Your task to perform on an android device: check storage Image 0: 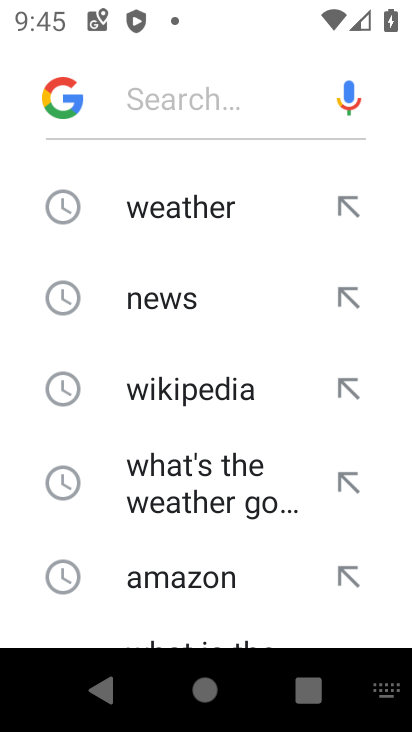
Step 0: press home button
Your task to perform on an android device: check storage Image 1: 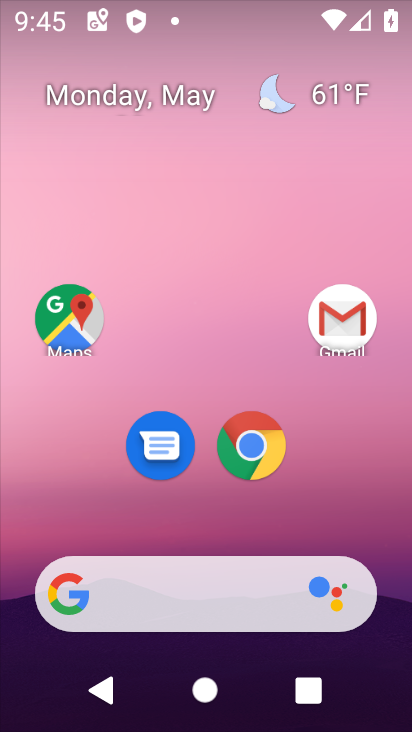
Step 1: drag from (342, 484) to (366, 101)
Your task to perform on an android device: check storage Image 2: 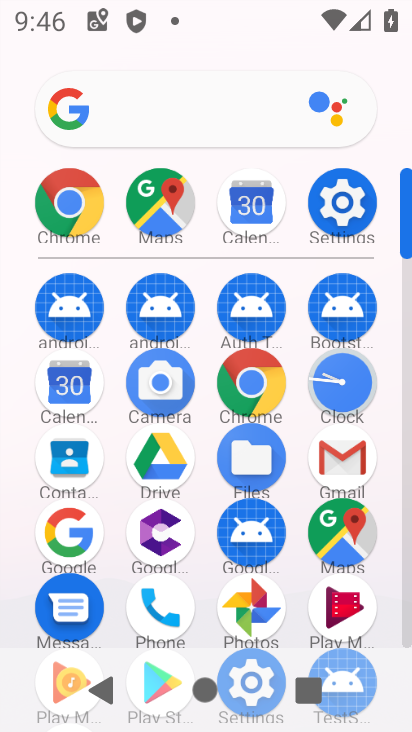
Step 2: click (347, 228)
Your task to perform on an android device: check storage Image 3: 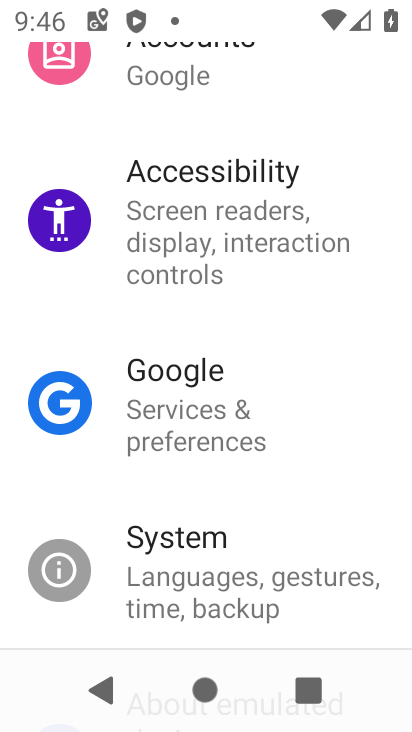
Step 3: drag from (362, 277) to (355, 402)
Your task to perform on an android device: check storage Image 4: 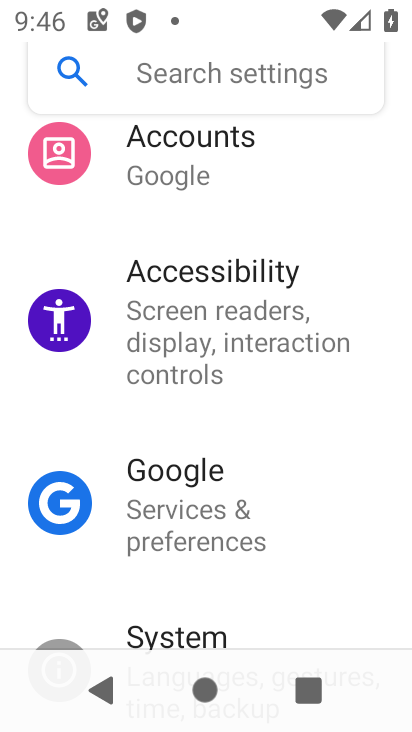
Step 4: drag from (359, 186) to (364, 347)
Your task to perform on an android device: check storage Image 5: 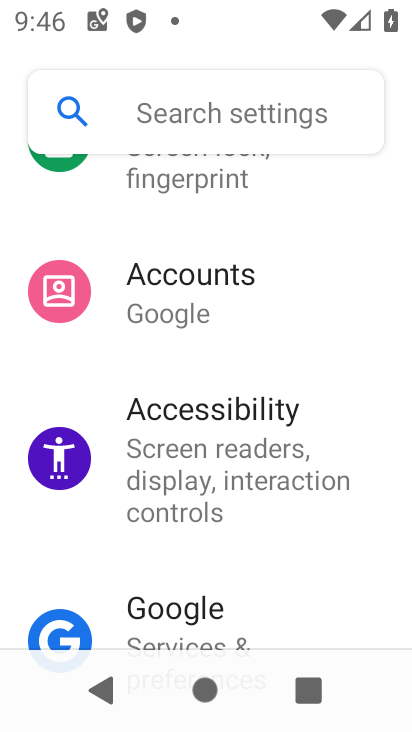
Step 5: drag from (357, 191) to (354, 361)
Your task to perform on an android device: check storage Image 6: 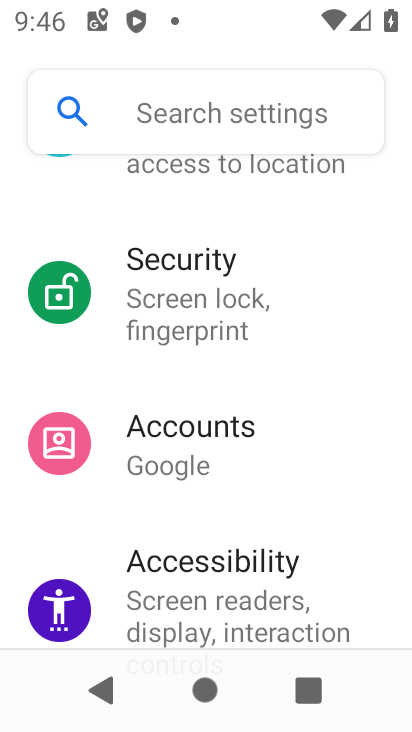
Step 6: drag from (332, 218) to (332, 337)
Your task to perform on an android device: check storage Image 7: 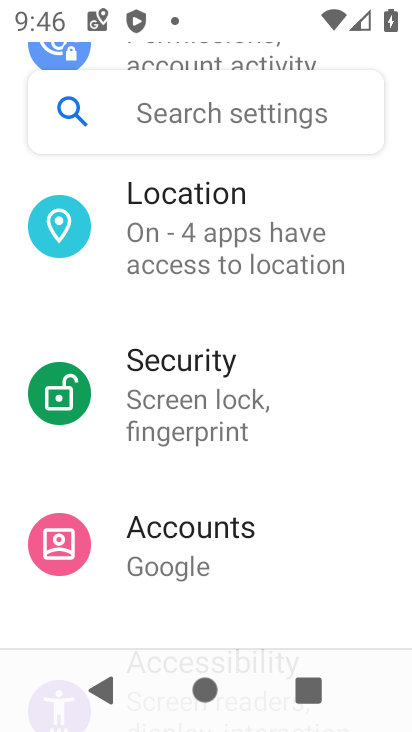
Step 7: drag from (359, 227) to (360, 417)
Your task to perform on an android device: check storage Image 8: 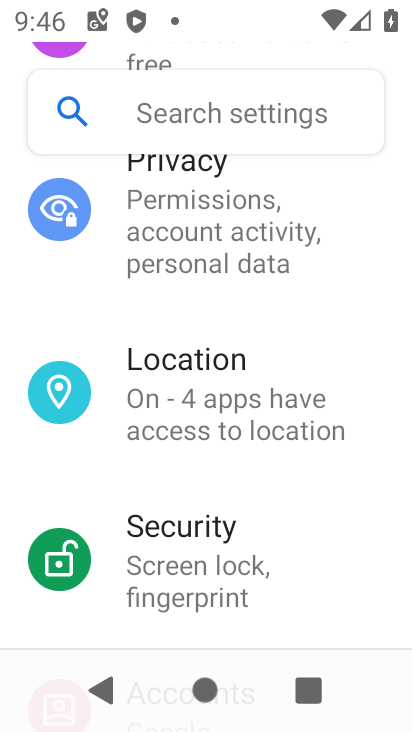
Step 8: drag from (354, 268) to (356, 401)
Your task to perform on an android device: check storage Image 9: 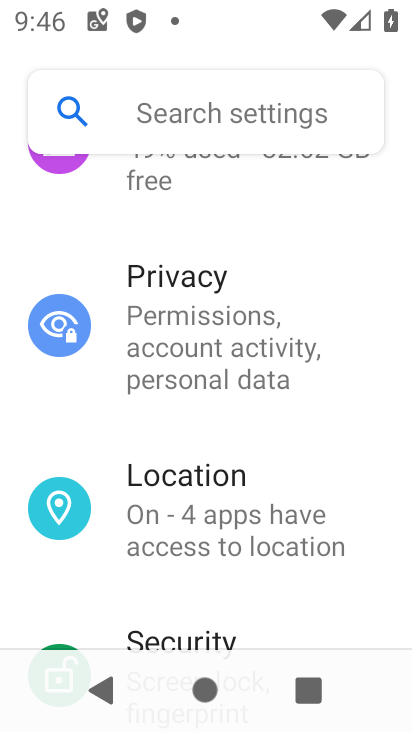
Step 9: drag from (362, 235) to (361, 390)
Your task to perform on an android device: check storage Image 10: 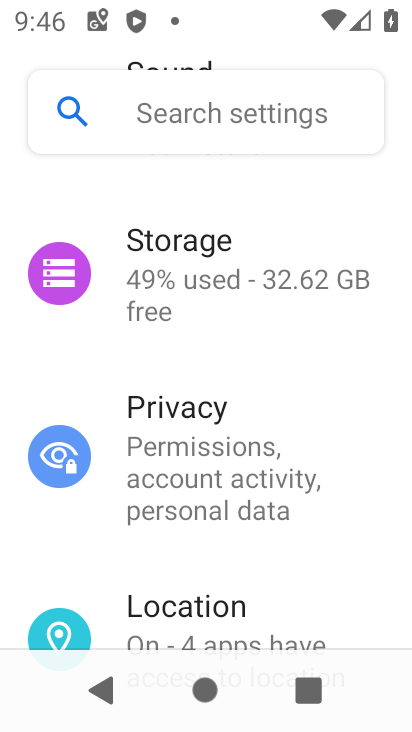
Step 10: drag from (335, 328) to (345, 436)
Your task to perform on an android device: check storage Image 11: 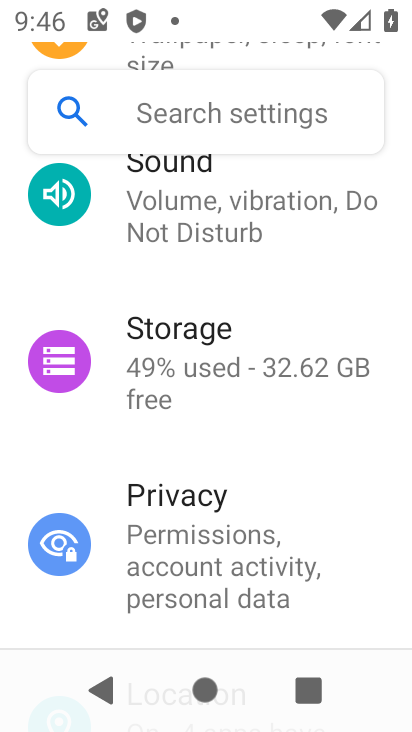
Step 11: click (299, 354)
Your task to perform on an android device: check storage Image 12: 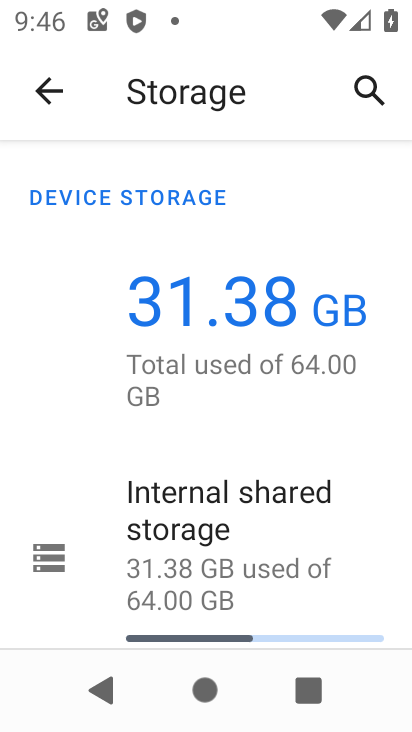
Step 12: task complete